Your task to perform on an android device: remove spam from my inbox in the gmail app Image 0: 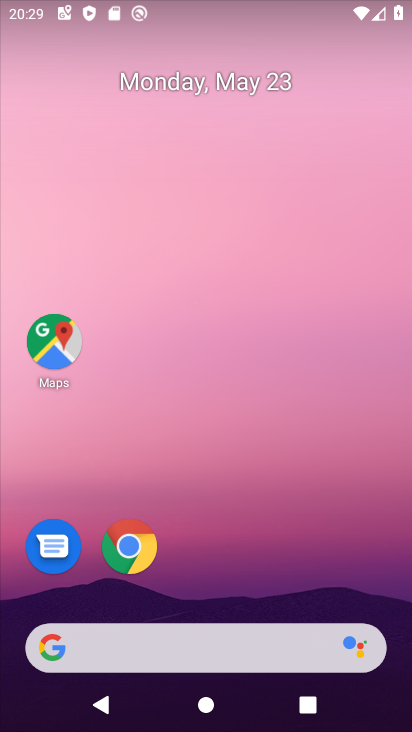
Step 0: drag from (387, 571) to (363, 195)
Your task to perform on an android device: remove spam from my inbox in the gmail app Image 1: 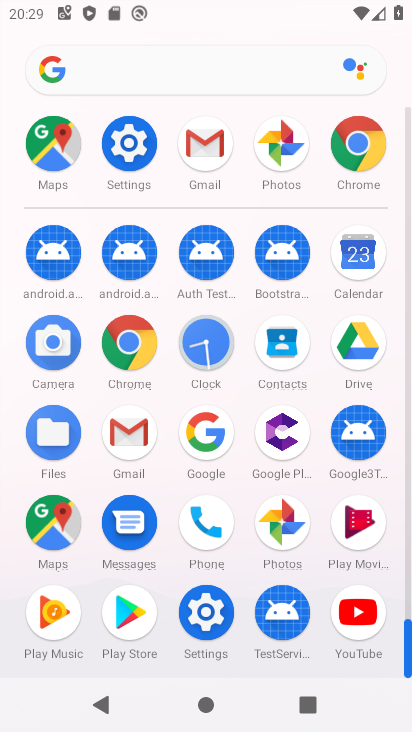
Step 1: click (138, 433)
Your task to perform on an android device: remove spam from my inbox in the gmail app Image 2: 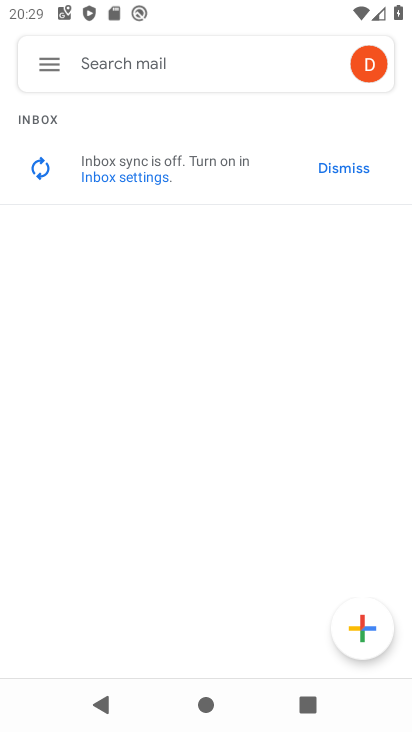
Step 2: click (47, 74)
Your task to perform on an android device: remove spam from my inbox in the gmail app Image 3: 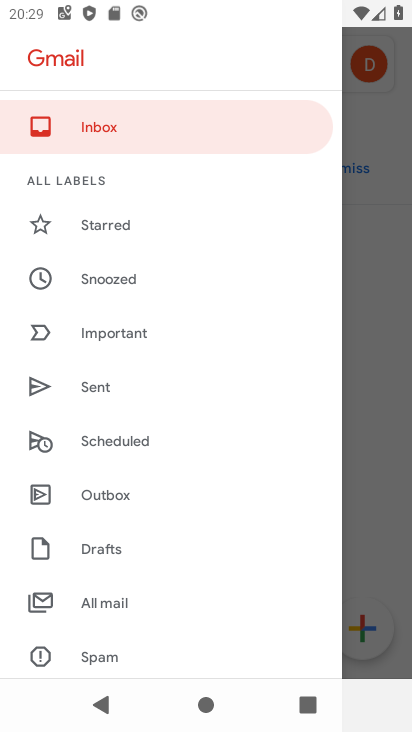
Step 3: drag from (270, 491) to (282, 409)
Your task to perform on an android device: remove spam from my inbox in the gmail app Image 4: 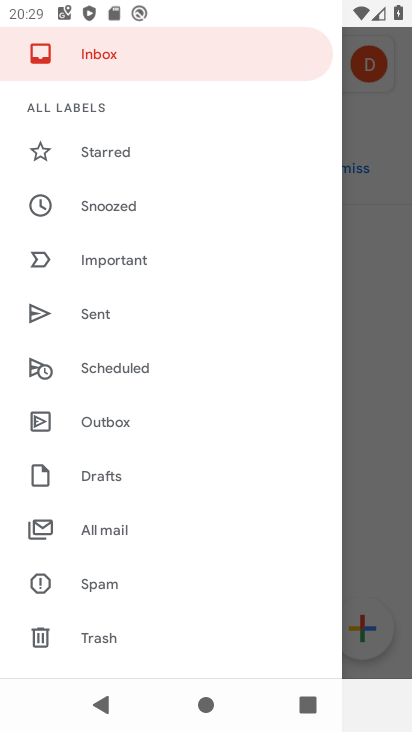
Step 4: drag from (290, 539) to (298, 454)
Your task to perform on an android device: remove spam from my inbox in the gmail app Image 5: 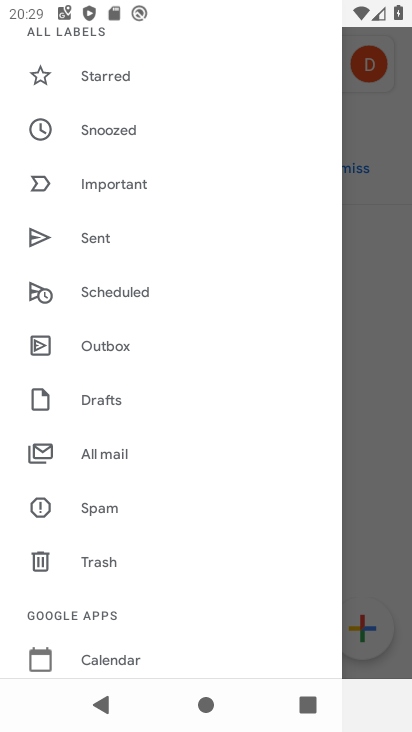
Step 5: drag from (289, 588) to (298, 489)
Your task to perform on an android device: remove spam from my inbox in the gmail app Image 6: 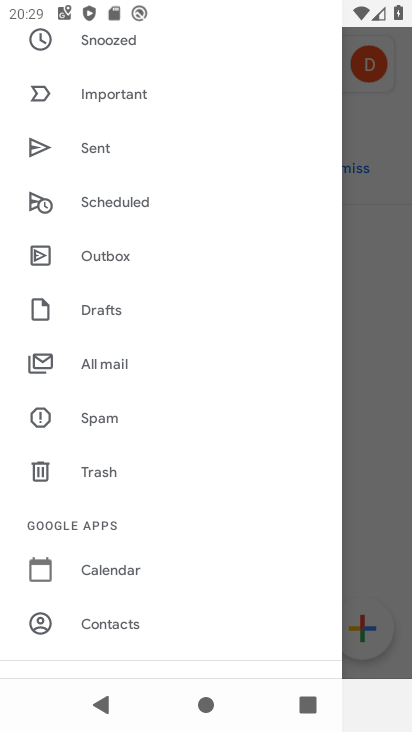
Step 6: drag from (301, 641) to (306, 528)
Your task to perform on an android device: remove spam from my inbox in the gmail app Image 7: 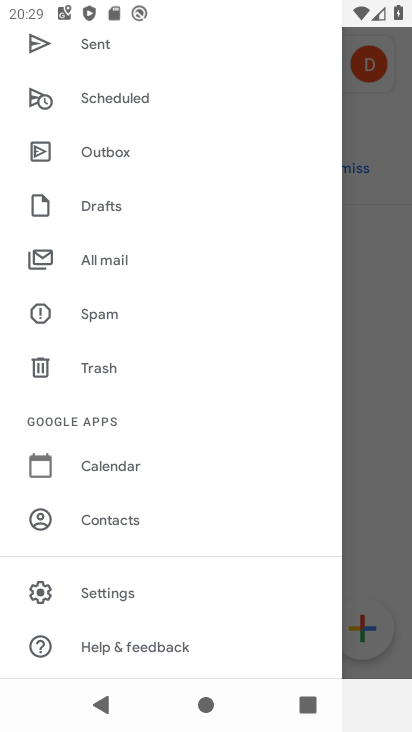
Step 7: drag from (288, 630) to (296, 533)
Your task to perform on an android device: remove spam from my inbox in the gmail app Image 8: 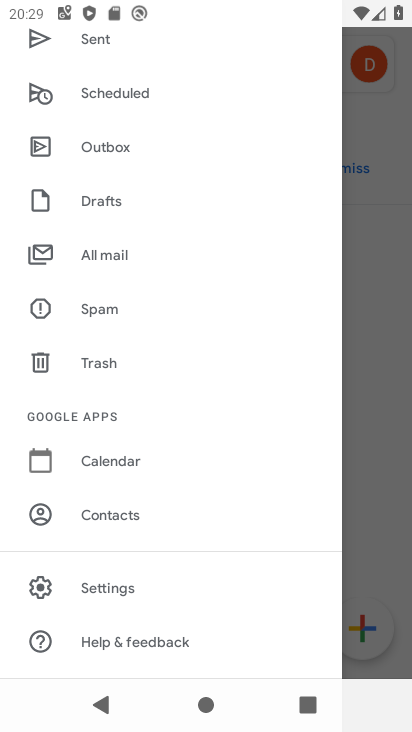
Step 8: drag from (243, 413) to (227, 499)
Your task to perform on an android device: remove spam from my inbox in the gmail app Image 9: 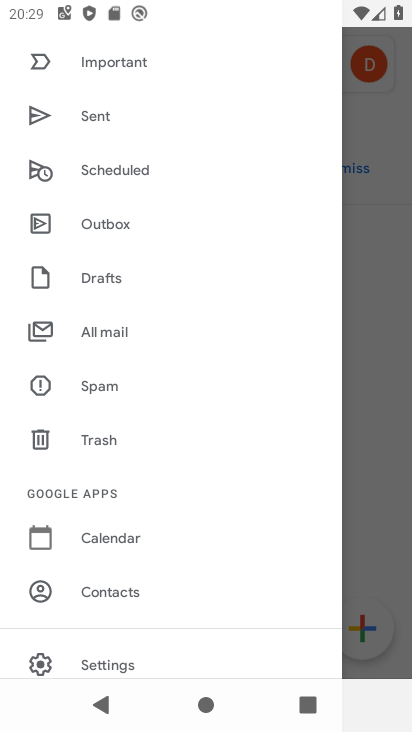
Step 9: drag from (234, 378) to (236, 585)
Your task to perform on an android device: remove spam from my inbox in the gmail app Image 10: 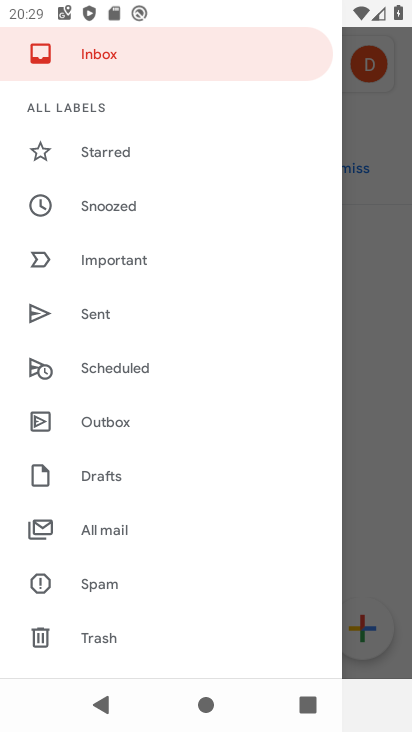
Step 10: click (119, 590)
Your task to perform on an android device: remove spam from my inbox in the gmail app Image 11: 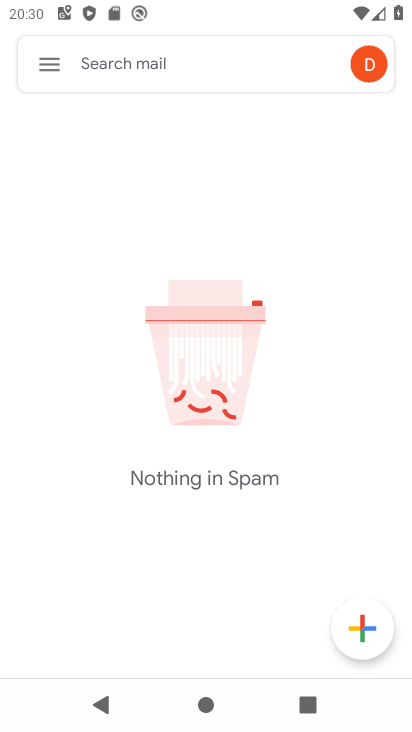
Step 11: task complete